Your task to perform on an android device: toggle pop-ups in chrome Image 0: 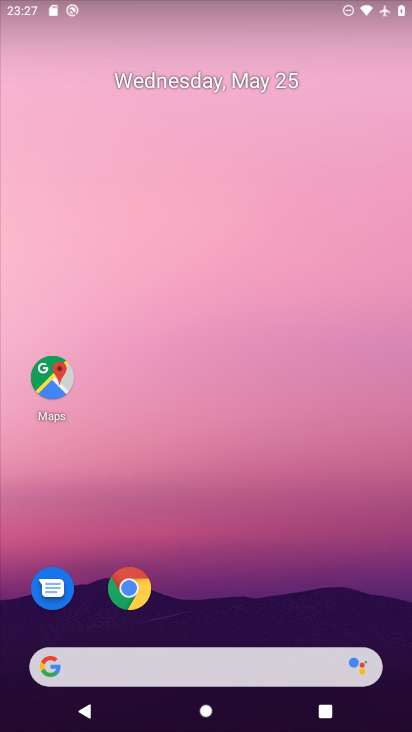
Step 0: drag from (227, 604) to (345, 75)
Your task to perform on an android device: toggle pop-ups in chrome Image 1: 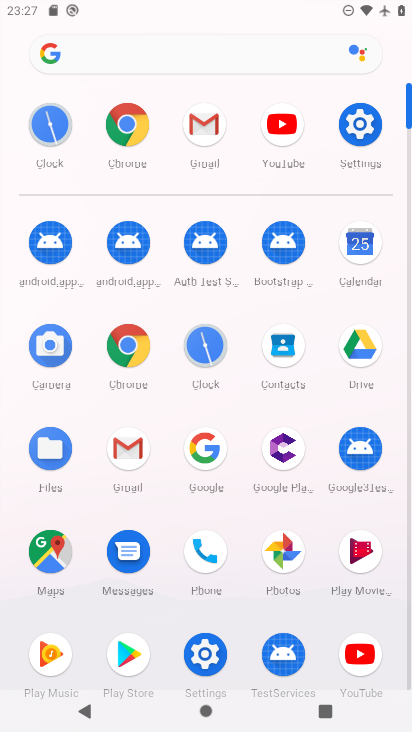
Step 1: click (123, 120)
Your task to perform on an android device: toggle pop-ups in chrome Image 2: 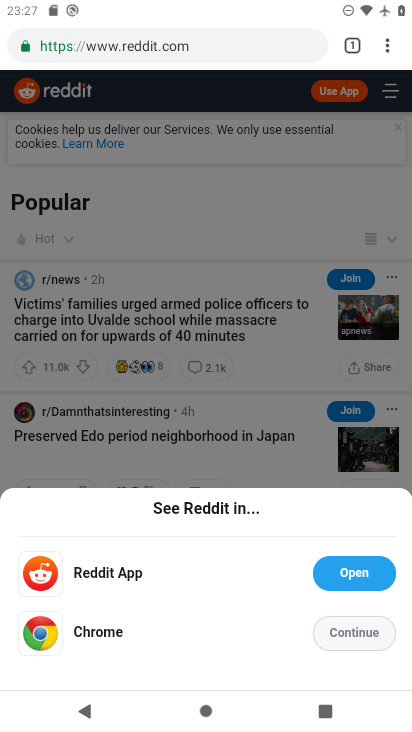
Step 2: drag from (384, 45) to (223, 555)
Your task to perform on an android device: toggle pop-ups in chrome Image 3: 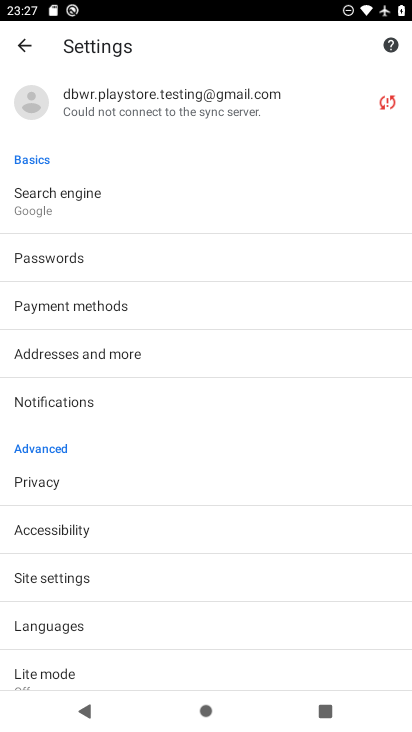
Step 3: click (74, 581)
Your task to perform on an android device: toggle pop-ups in chrome Image 4: 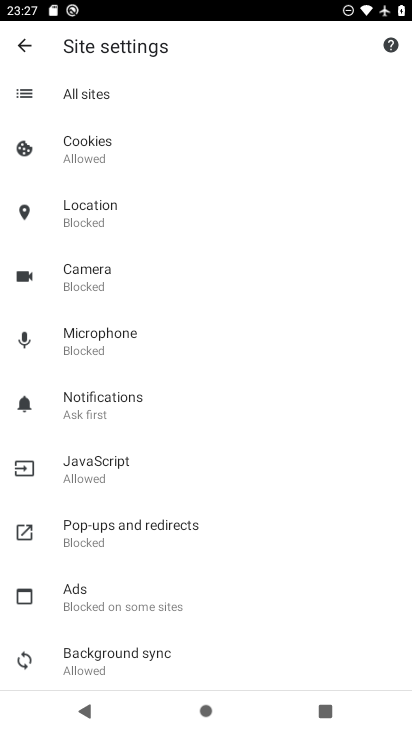
Step 4: click (102, 530)
Your task to perform on an android device: toggle pop-ups in chrome Image 5: 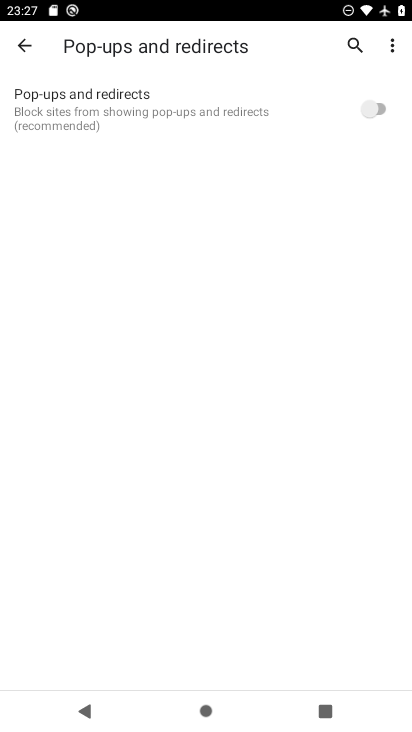
Step 5: click (371, 100)
Your task to perform on an android device: toggle pop-ups in chrome Image 6: 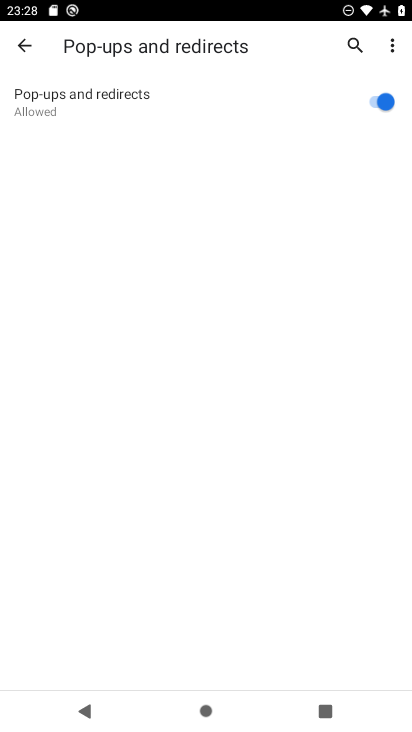
Step 6: task complete